Your task to perform on an android device: see sites visited before in the chrome app Image 0: 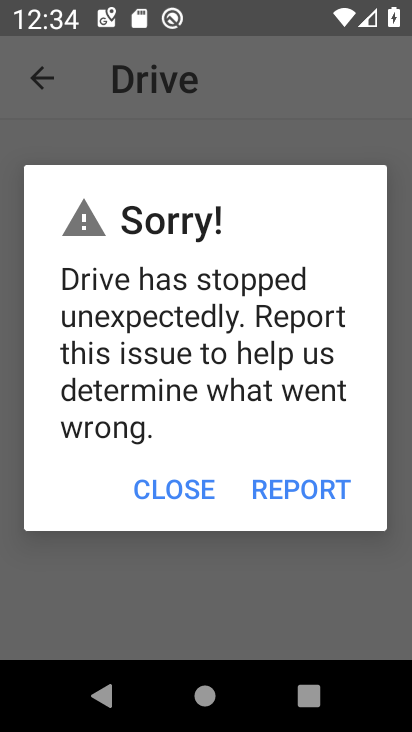
Step 0: press home button
Your task to perform on an android device: see sites visited before in the chrome app Image 1: 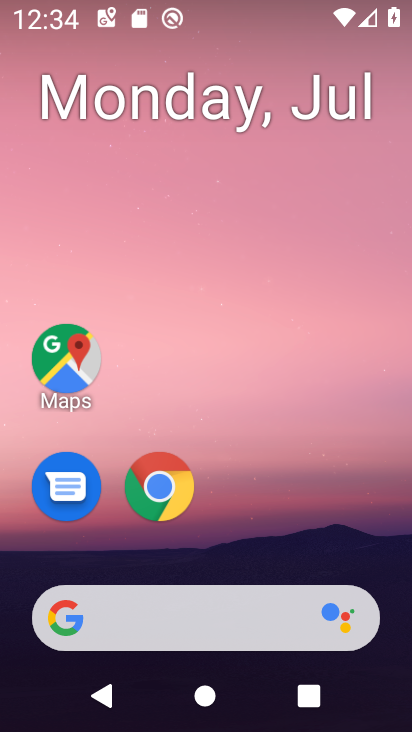
Step 1: drag from (346, 498) to (324, 37)
Your task to perform on an android device: see sites visited before in the chrome app Image 2: 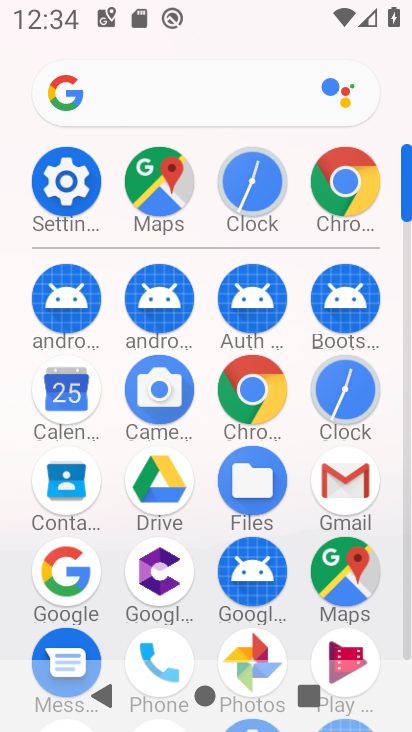
Step 2: click (260, 391)
Your task to perform on an android device: see sites visited before in the chrome app Image 3: 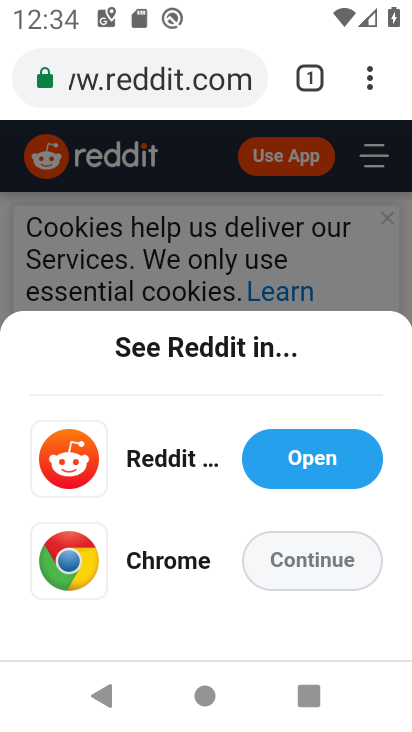
Step 3: click (367, 87)
Your task to perform on an android device: see sites visited before in the chrome app Image 4: 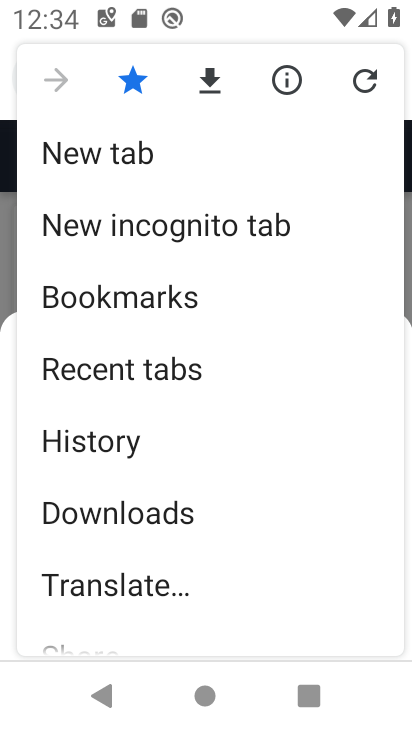
Step 4: drag from (300, 497) to (314, 386)
Your task to perform on an android device: see sites visited before in the chrome app Image 5: 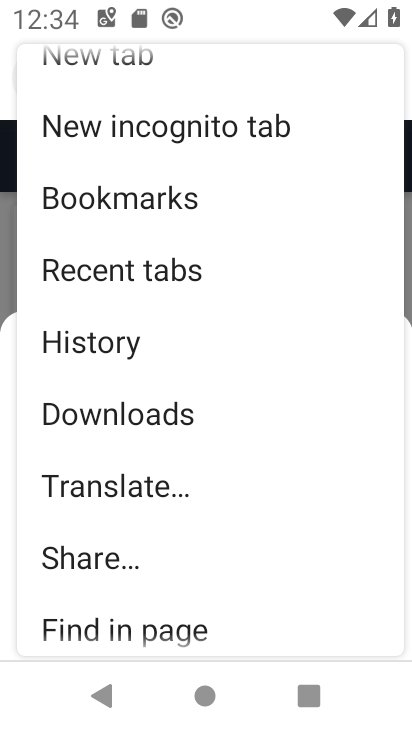
Step 5: drag from (301, 517) to (300, 401)
Your task to perform on an android device: see sites visited before in the chrome app Image 6: 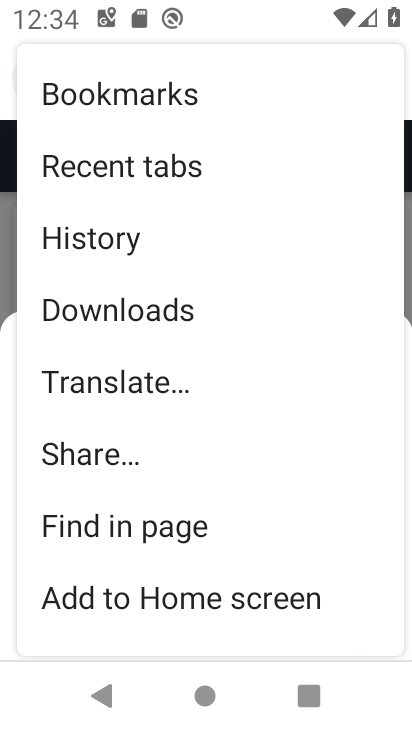
Step 6: drag from (292, 529) to (277, 340)
Your task to perform on an android device: see sites visited before in the chrome app Image 7: 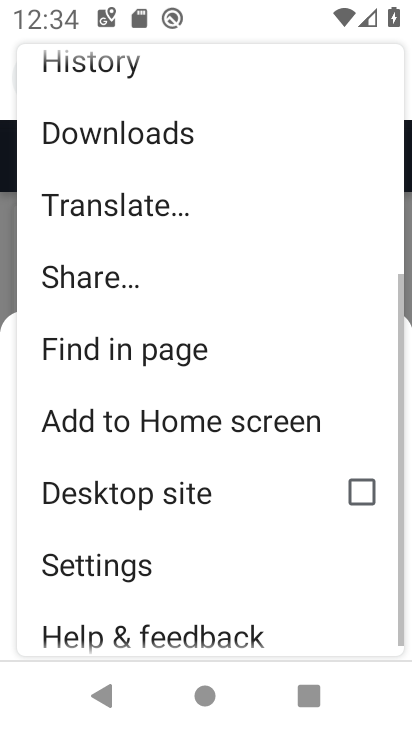
Step 7: drag from (266, 543) to (271, 382)
Your task to perform on an android device: see sites visited before in the chrome app Image 8: 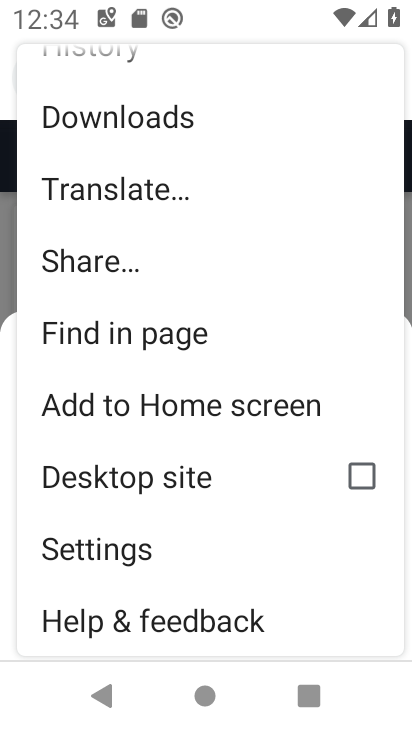
Step 8: drag from (267, 194) to (270, 343)
Your task to perform on an android device: see sites visited before in the chrome app Image 9: 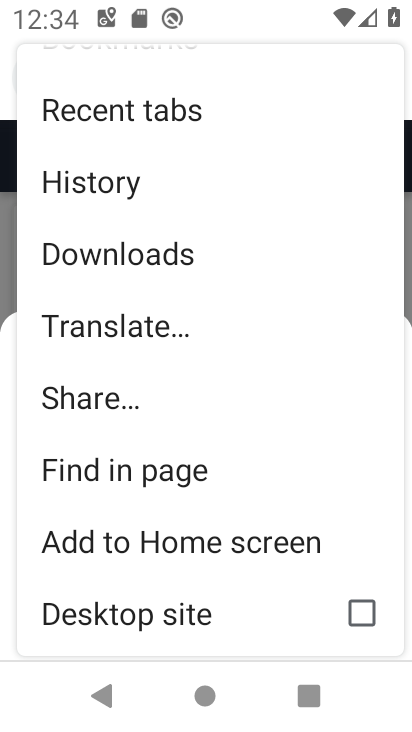
Step 9: click (194, 172)
Your task to perform on an android device: see sites visited before in the chrome app Image 10: 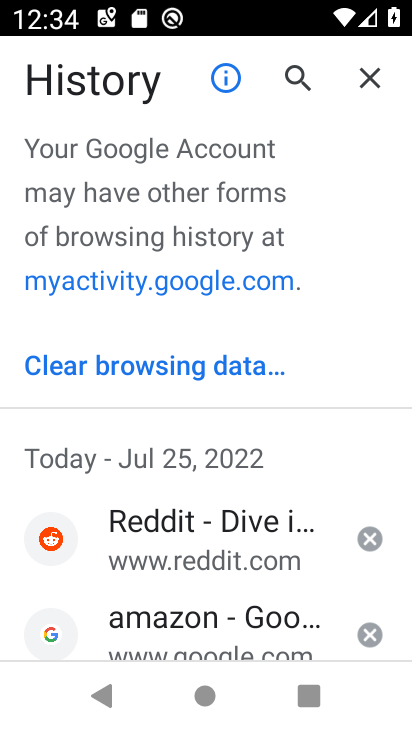
Step 10: task complete